Your task to perform on an android device: turn off location history Image 0: 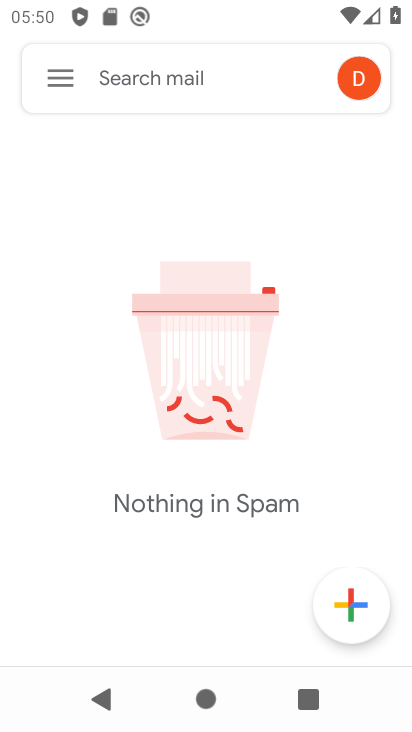
Step 0: press home button
Your task to perform on an android device: turn off location history Image 1: 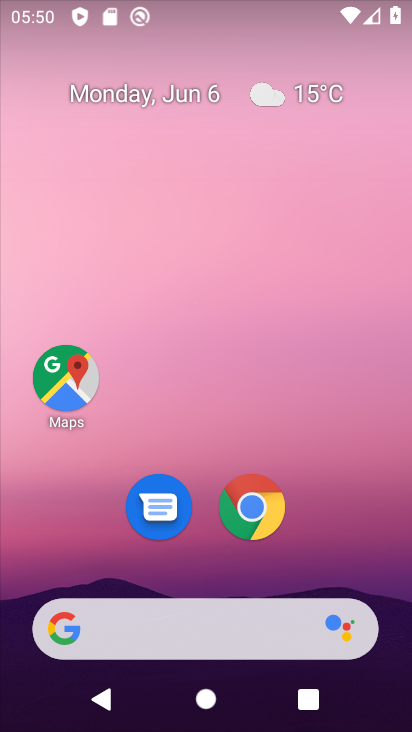
Step 1: drag from (195, 567) to (177, 1)
Your task to perform on an android device: turn off location history Image 2: 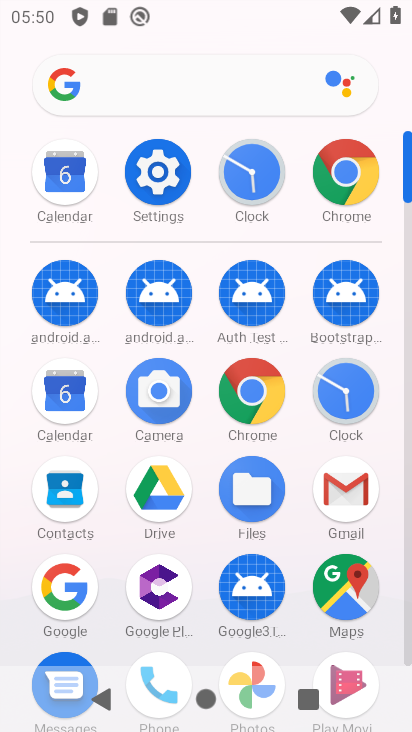
Step 2: click (155, 170)
Your task to perform on an android device: turn off location history Image 3: 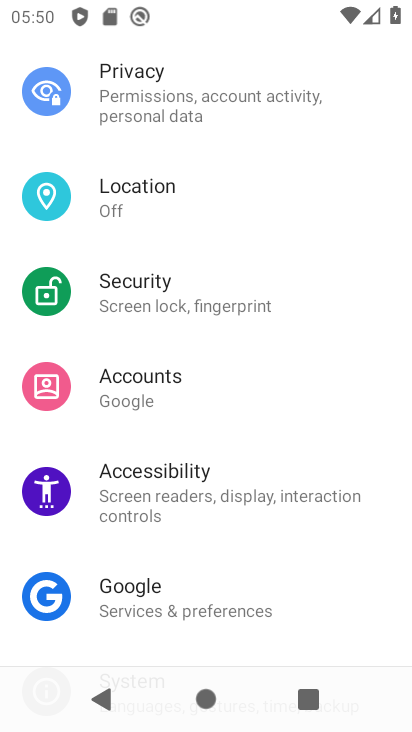
Step 3: click (122, 188)
Your task to perform on an android device: turn off location history Image 4: 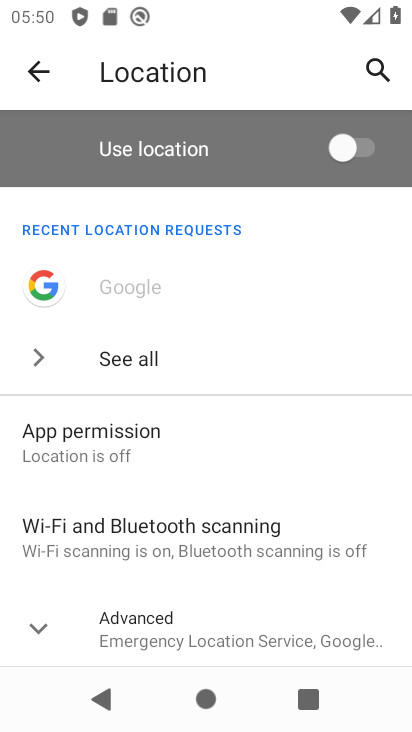
Step 4: click (117, 631)
Your task to perform on an android device: turn off location history Image 5: 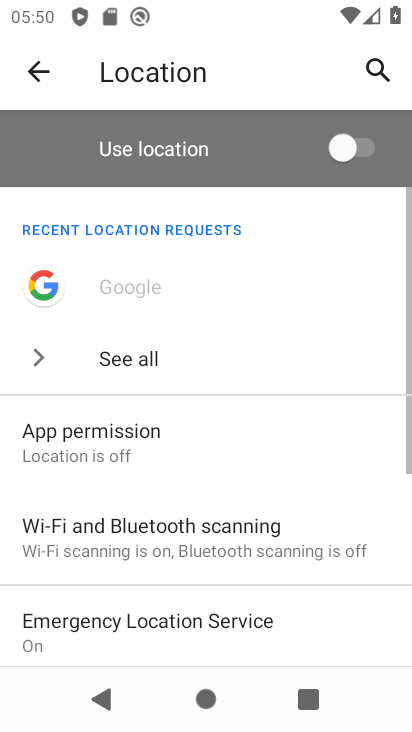
Step 5: drag from (162, 649) to (226, 173)
Your task to perform on an android device: turn off location history Image 6: 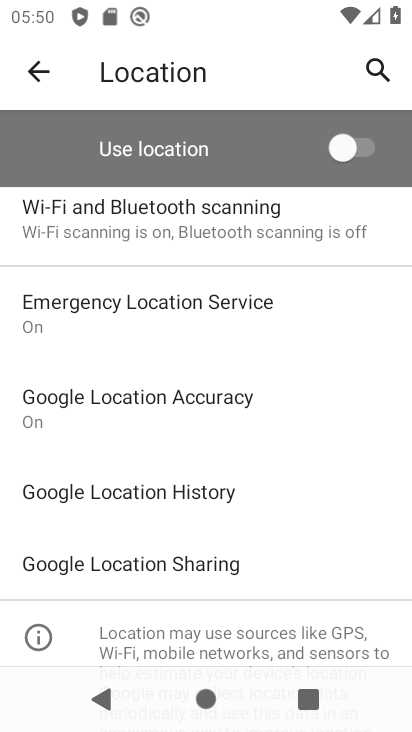
Step 6: click (188, 501)
Your task to perform on an android device: turn off location history Image 7: 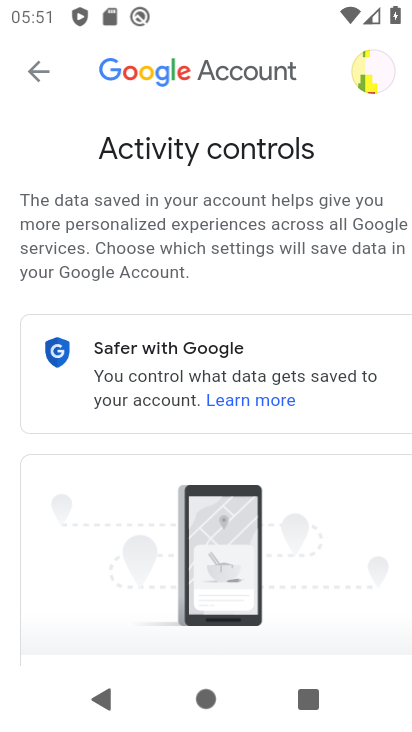
Step 7: task complete